Your task to perform on an android device: Search for Italian restaurants on Maps Image 0: 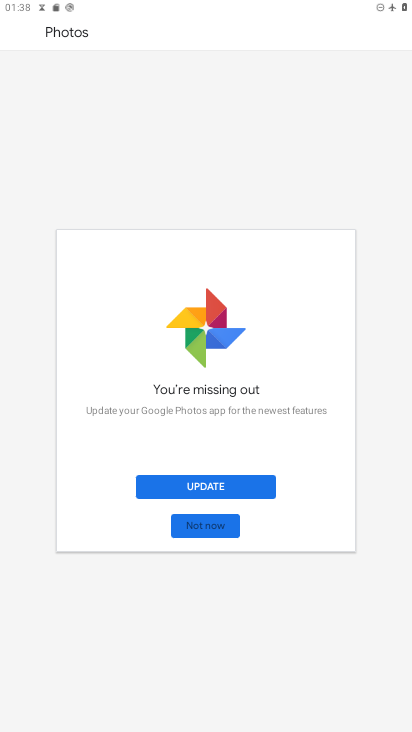
Step 0: press home button
Your task to perform on an android device: Search for Italian restaurants on Maps Image 1: 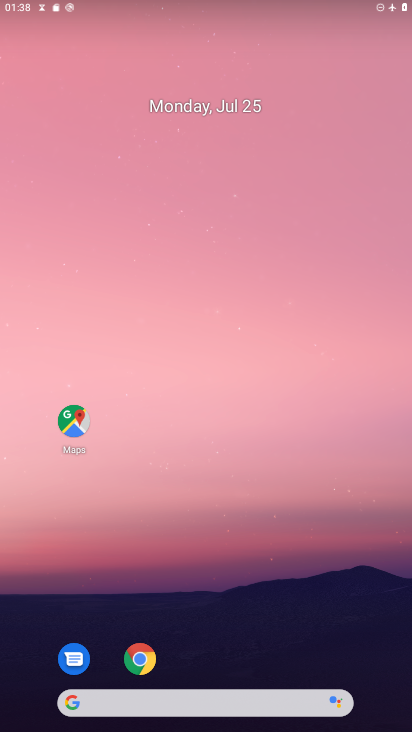
Step 1: drag from (191, 637) to (213, 139)
Your task to perform on an android device: Search for Italian restaurants on Maps Image 2: 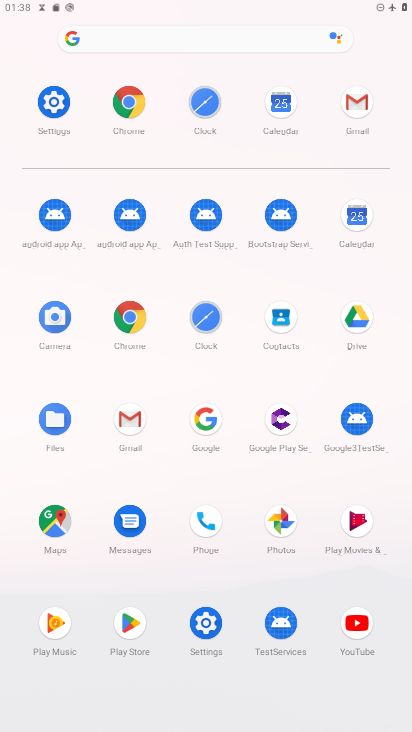
Step 2: click (53, 511)
Your task to perform on an android device: Search for Italian restaurants on Maps Image 3: 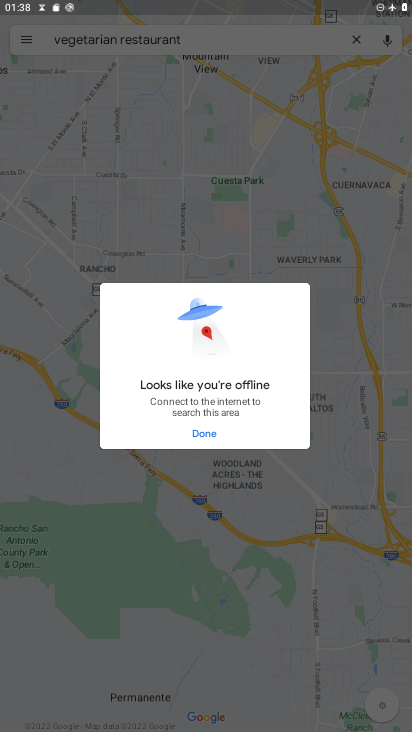
Step 3: click (344, 30)
Your task to perform on an android device: Search for Italian restaurants on Maps Image 4: 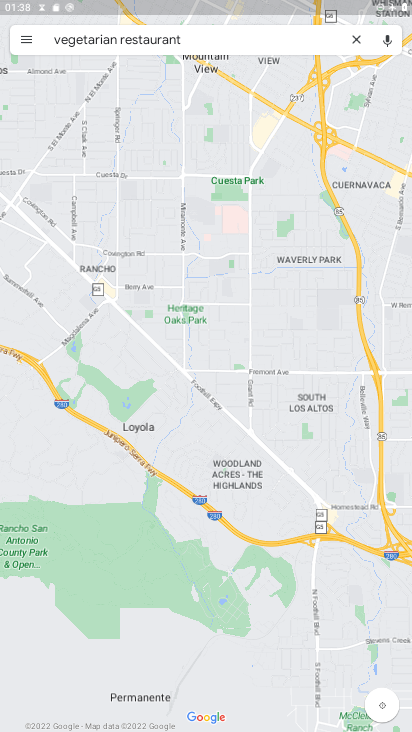
Step 4: click (357, 31)
Your task to perform on an android device: Search for Italian restaurants on Maps Image 5: 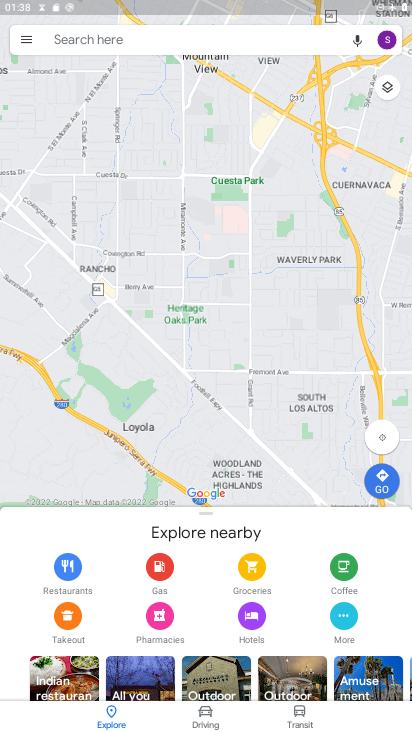
Step 5: click (121, 34)
Your task to perform on an android device: Search for Italian restaurants on Maps Image 6: 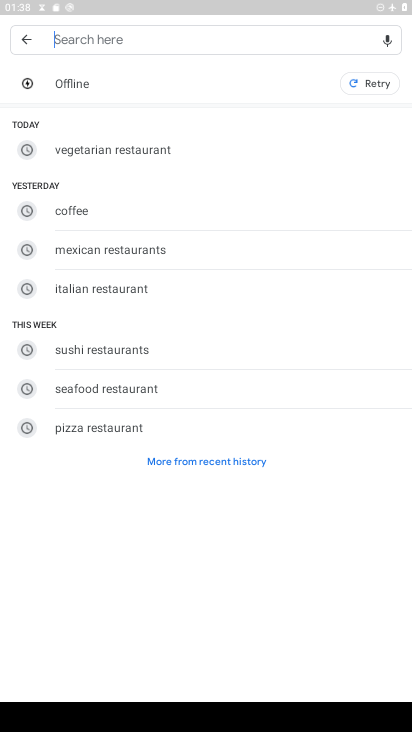
Step 6: click (147, 282)
Your task to perform on an android device: Search for Italian restaurants on Maps Image 7: 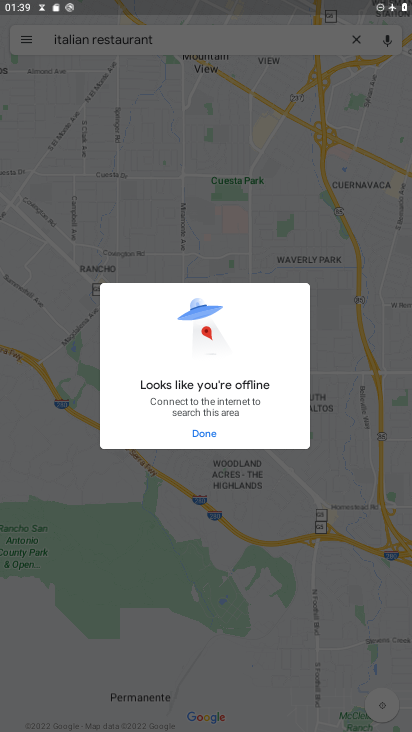
Step 7: click (218, 431)
Your task to perform on an android device: Search for Italian restaurants on Maps Image 8: 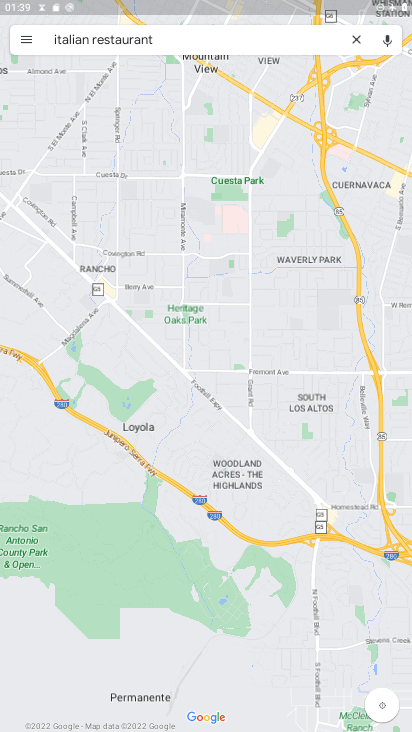
Step 8: task complete